Your task to perform on an android device: turn off improve location accuracy Image 0: 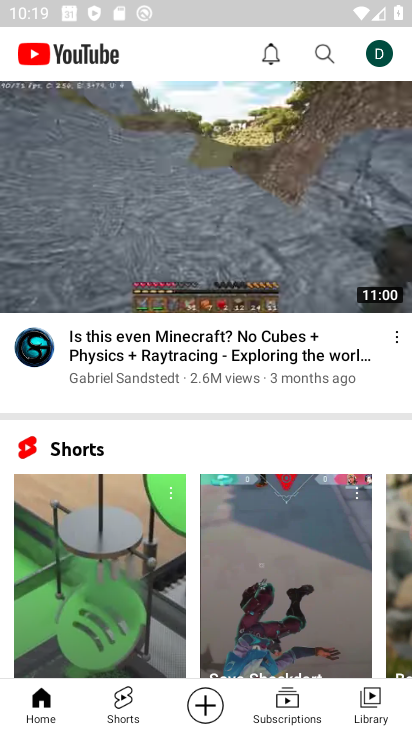
Step 0: press home button
Your task to perform on an android device: turn off improve location accuracy Image 1: 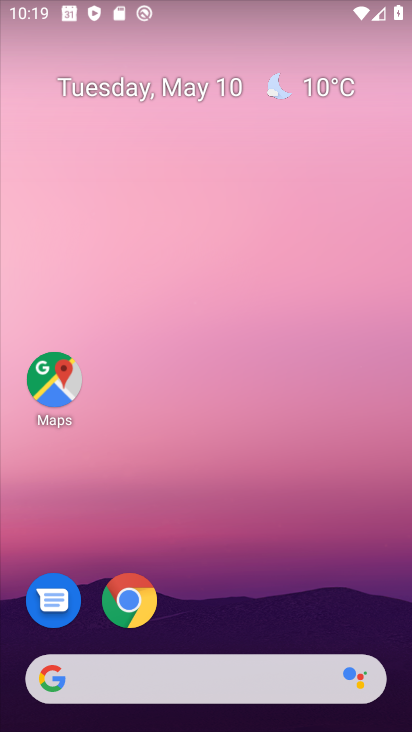
Step 1: drag from (283, 547) to (313, 140)
Your task to perform on an android device: turn off improve location accuracy Image 2: 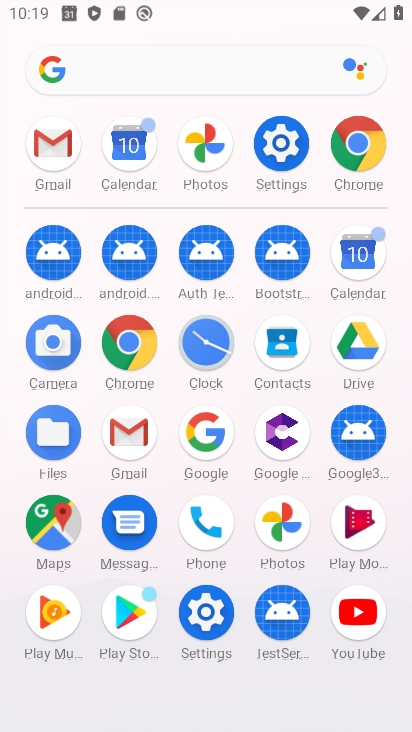
Step 2: click (298, 151)
Your task to perform on an android device: turn off improve location accuracy Image 3: 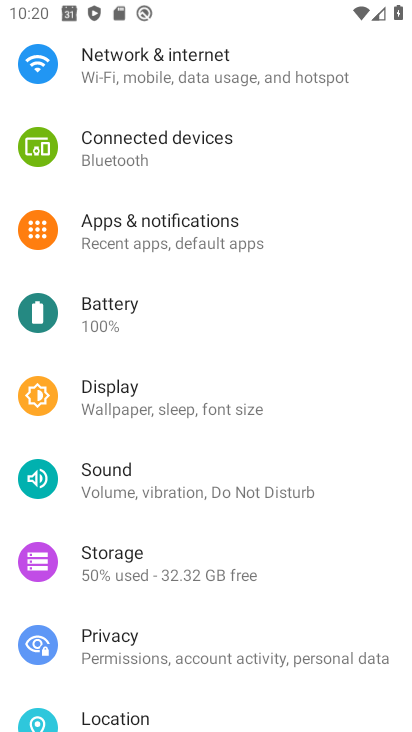
Step 3: drag from (168, 635) to (223, 311)
Your task to perform on an android device: turn off improve location accuracy Image 4: 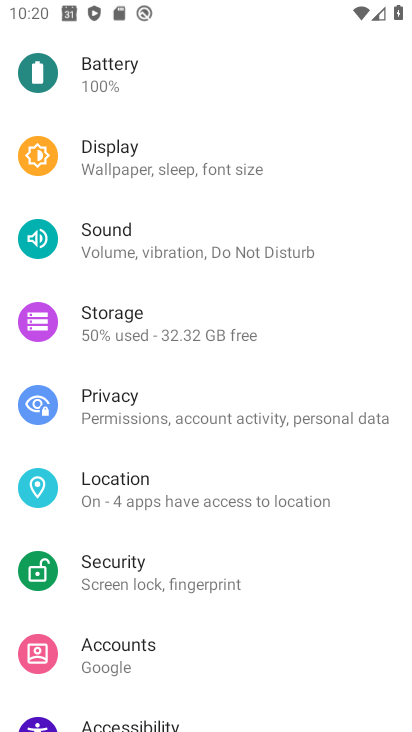
Step 4: click (182, 501)
Your task to perform on an android device: turn off improve location accuracy Image 5: 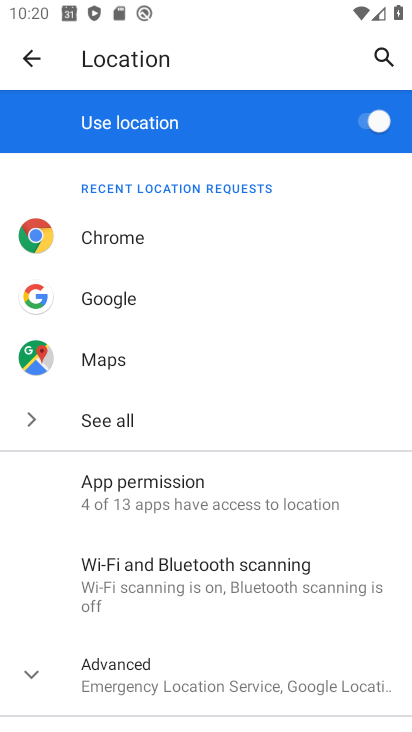
Step 5: drag from (188, 623) to (303, 345)
Your task to perform on an android device: turn off improve location accuracy Image 6: 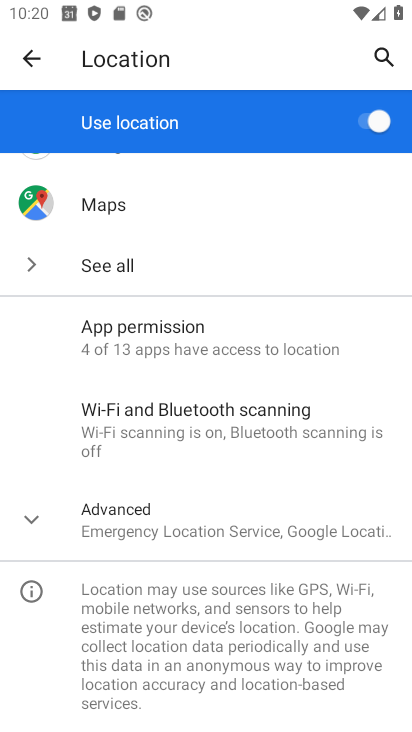
Step 6: click (207, 540)
Your task to perform on an android device: turn off improve location accuracy Image 7: 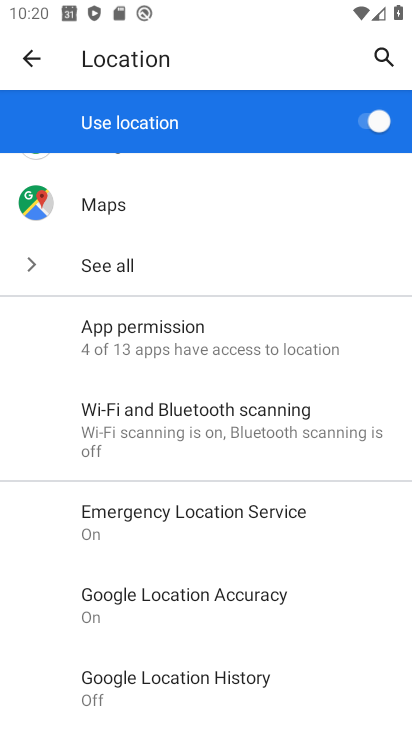
Step 7: click (236, 588)
Your task to perform on an android device: turn off improve location accuracy Image 8: 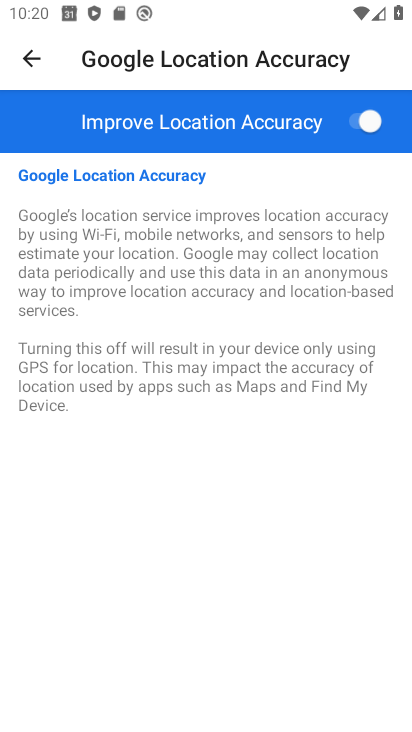
Step 8: click (360, 116)
Your task to perform on an android device: turn off improve location accuracy Image 9: 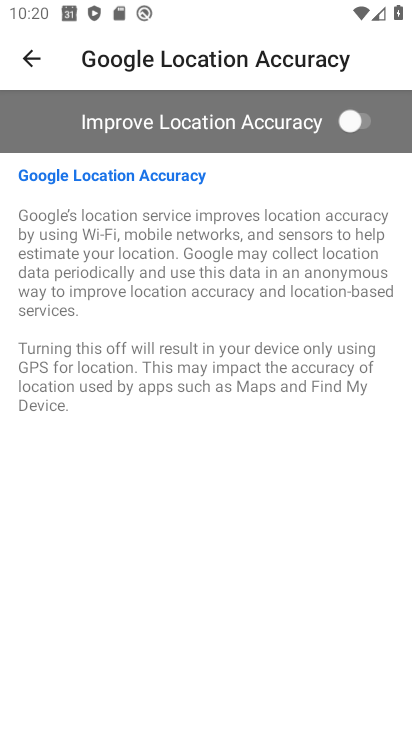
Step 9: task complete